Your task to perform on an android device: Open Google Image 0: 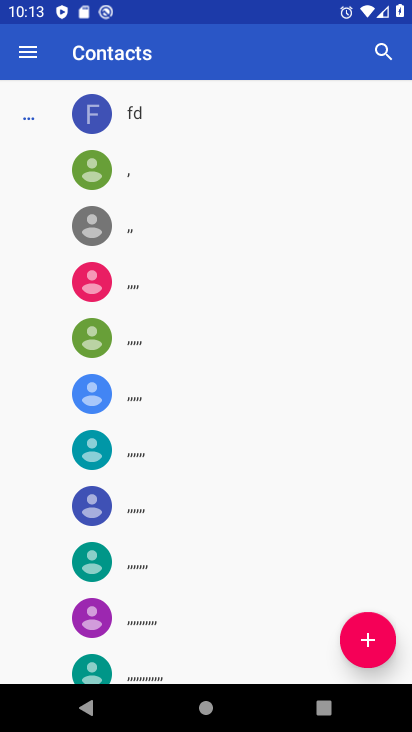
Step 0: press home button
Your task to perform on an android device: Open Google Image 1: 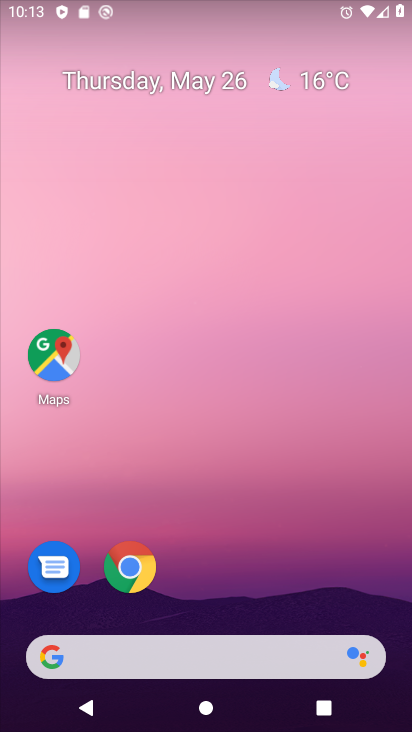
Step 1: drag from (398, 709) to (276, 122)
Your task to perform on an android device: Open Google Image 2: 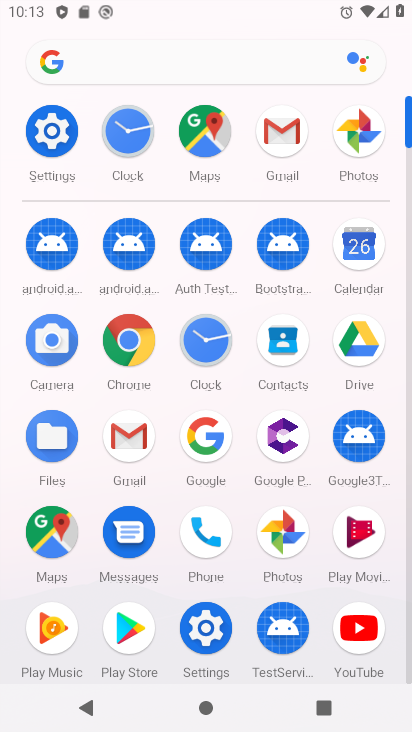
Step 2: click (190, 441)
Your task to perform on an android device: Open Google Image 3: 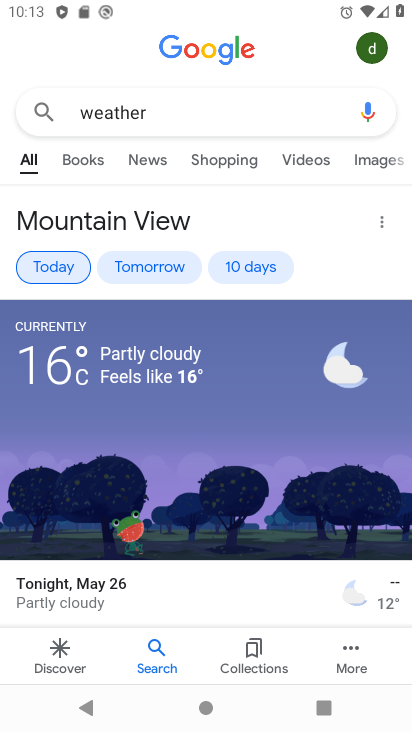
Step 3: task complete